Your task to perform on an android device: Add razer thresher to the cart on amazon.com Image 0: 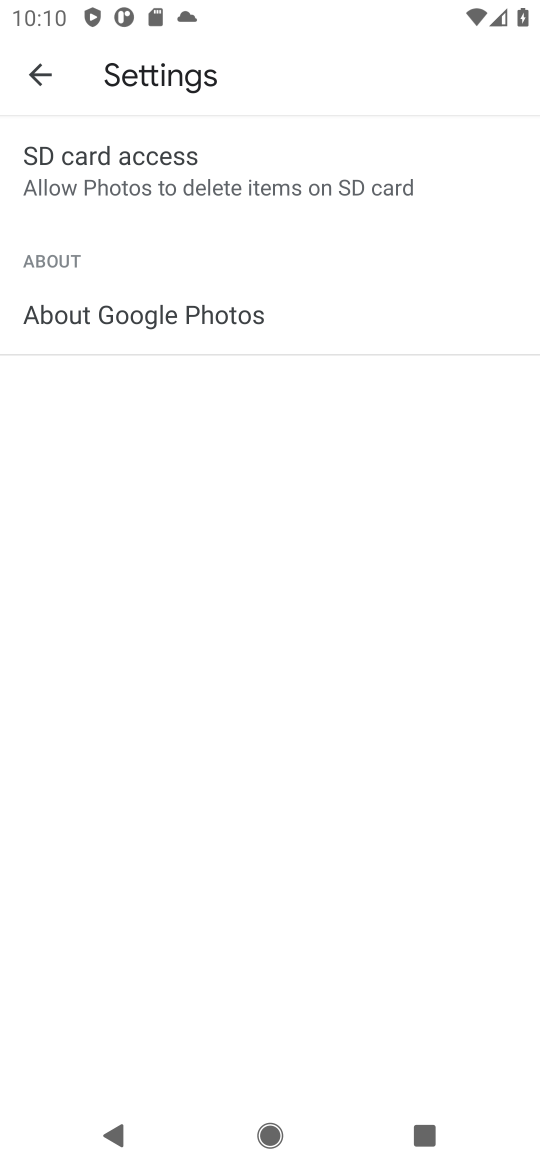
Step 0: press home button
Your task to perform on an android device: Add razer thresher to the cart on amazon.com Image 1: 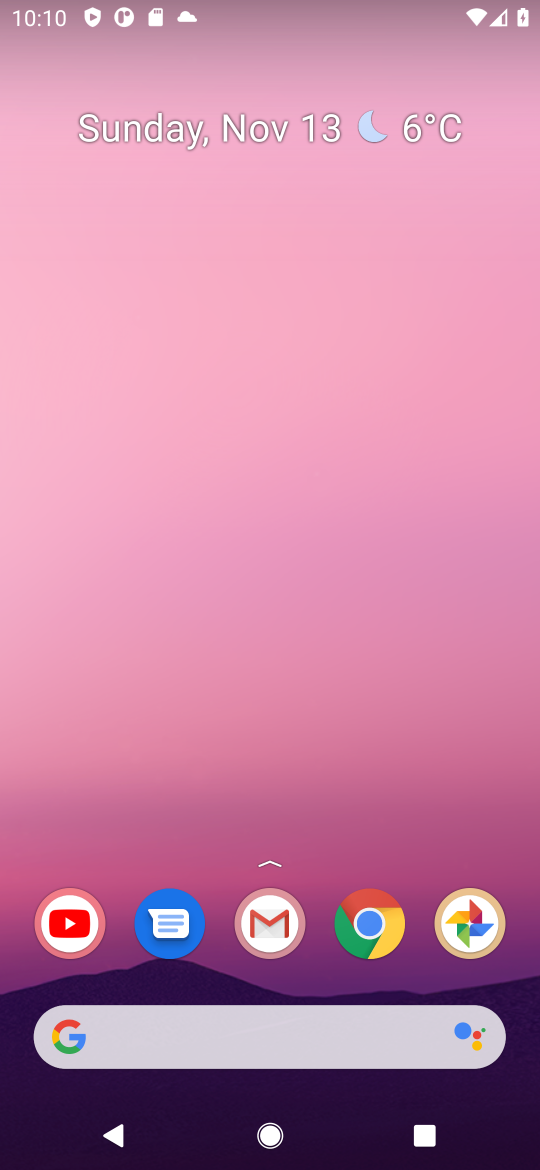
Step 1: click (362, 928)
Your task to perform on an android device: Add razer thresher to the cart on amazon.com Image 2: 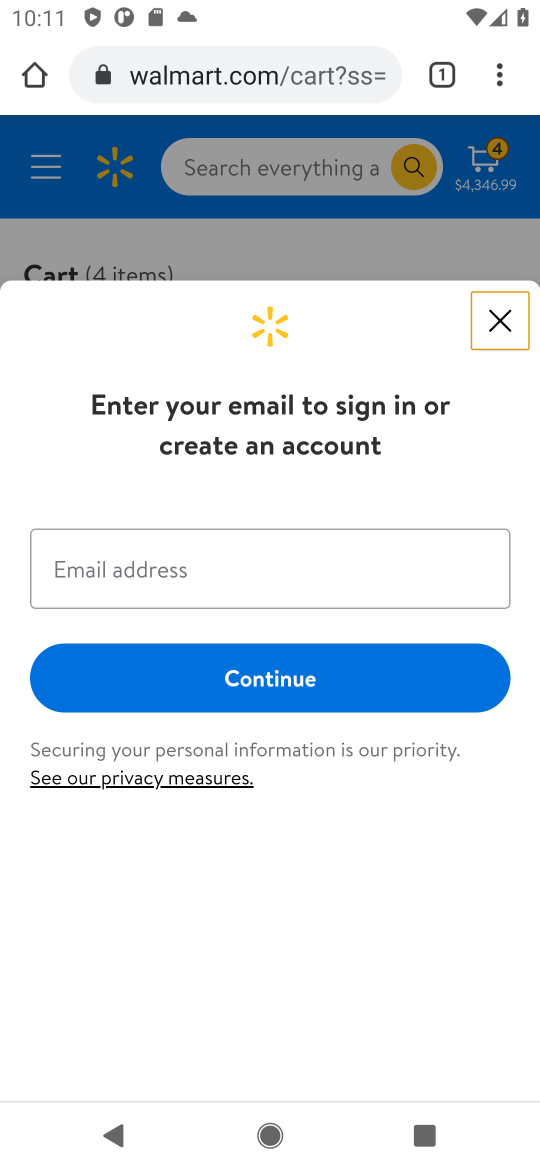
Step 2: click (333, 83)
Your task to perform on an android device: Add razer thresher to the cart on amazon.com Image 3: 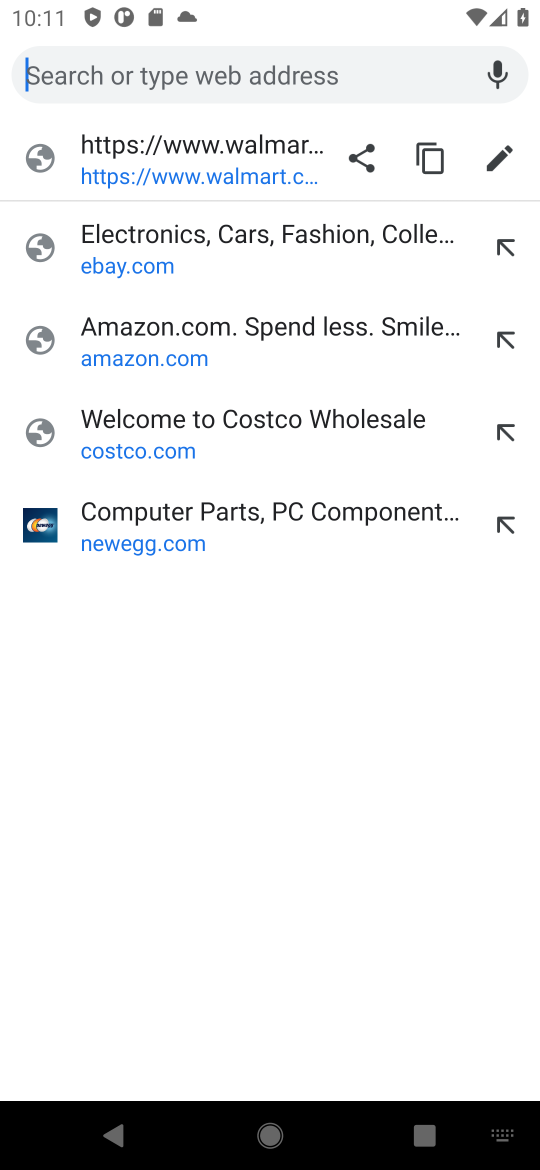
Step 3: click (227, 328)
Your task to perform on an android device: Add razer thresher to the cart on amazon.com Image 4: 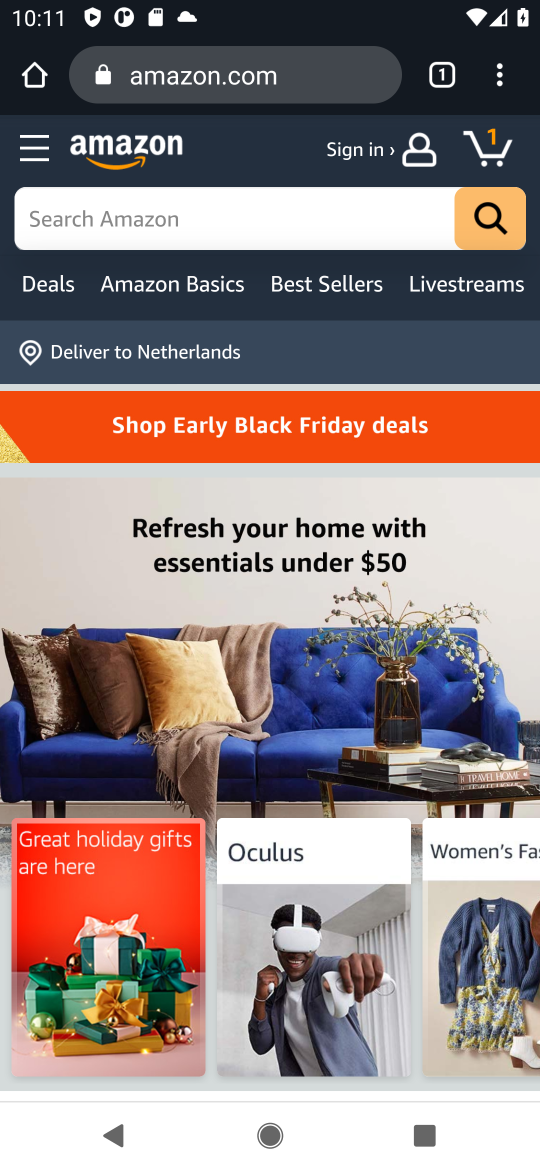
Step 4: click (287, 206)
Your task to perform on an android device: Add razer thresher to the cart on amazon.com Image 5: 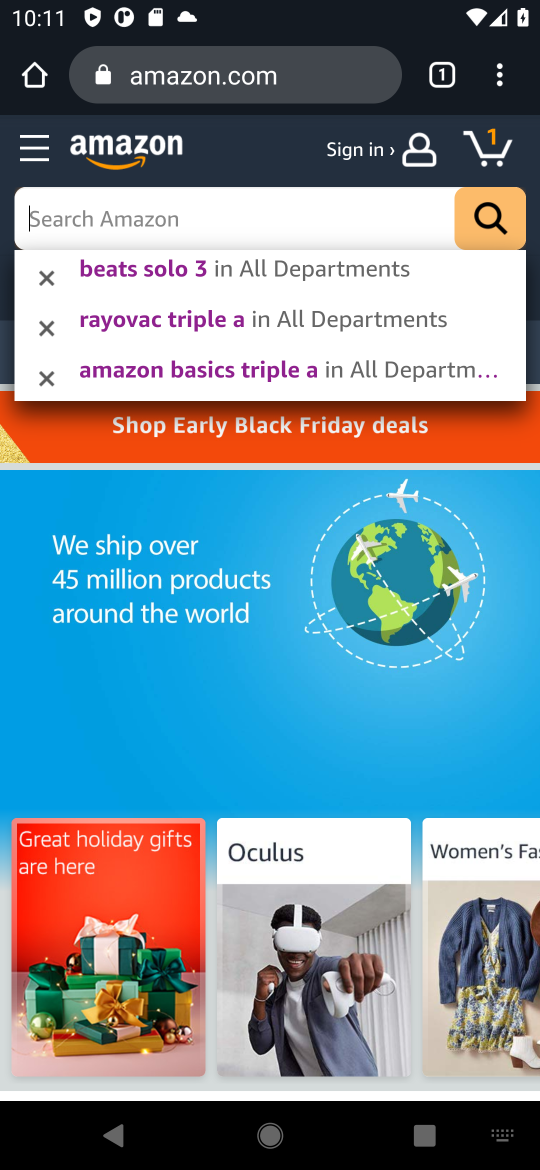
Step 5: type "razer thresher"
Your task to perform on an android device: Add razer thresher to the cart on amazon.com Image 6: 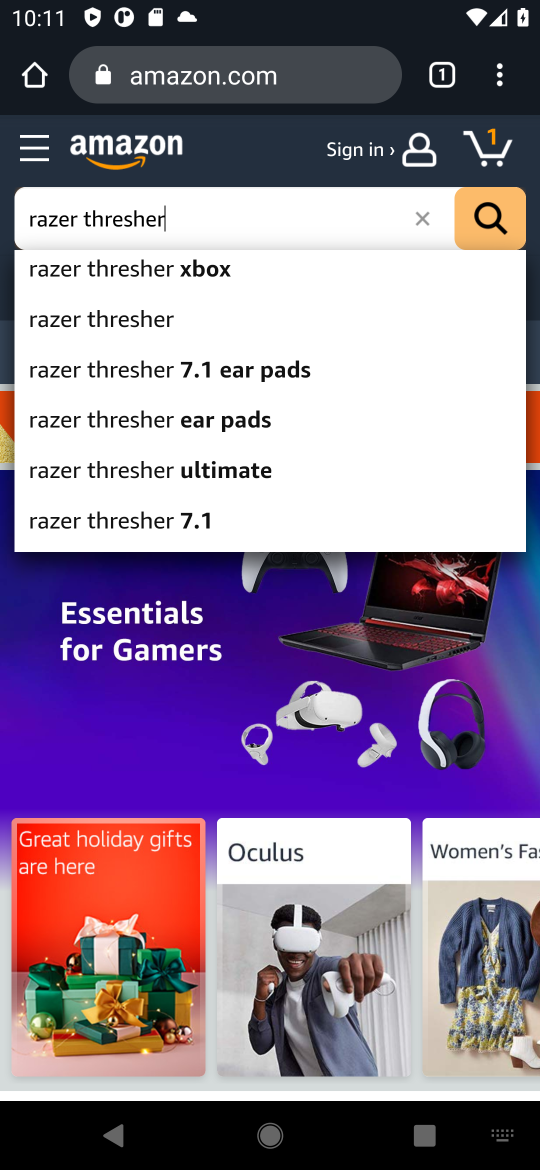
Step 6: click (139, 316)
Your task to perform on an android device: Add razer thresher to the cart on amazon.com Image 7: 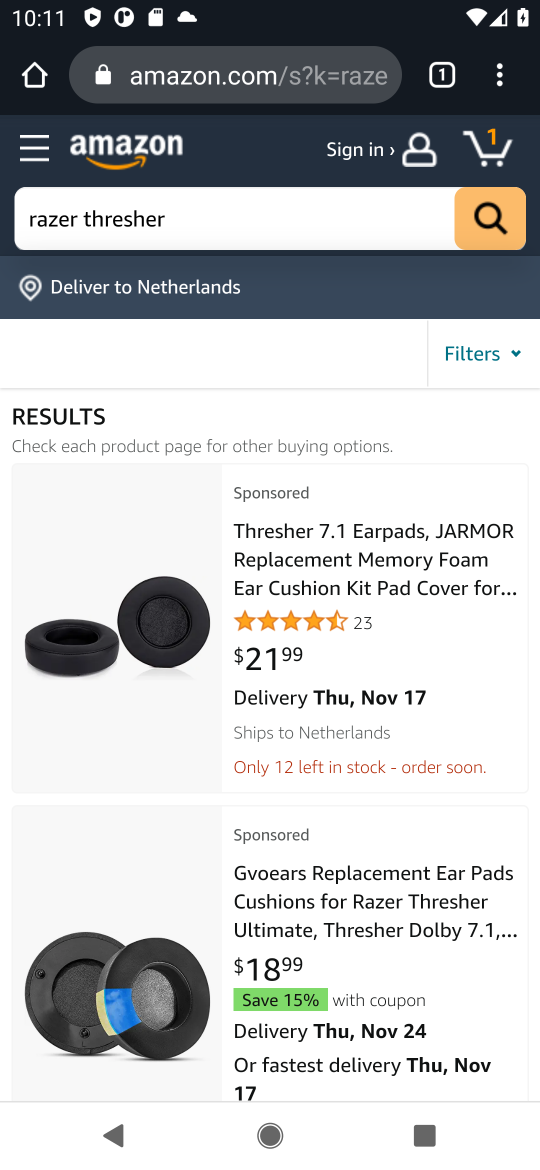
Step 7: drag from (422, 1005) to (428, 469)
Your task to perform on an android device: Add razer thresher to the cart on amazon.com Image 8: 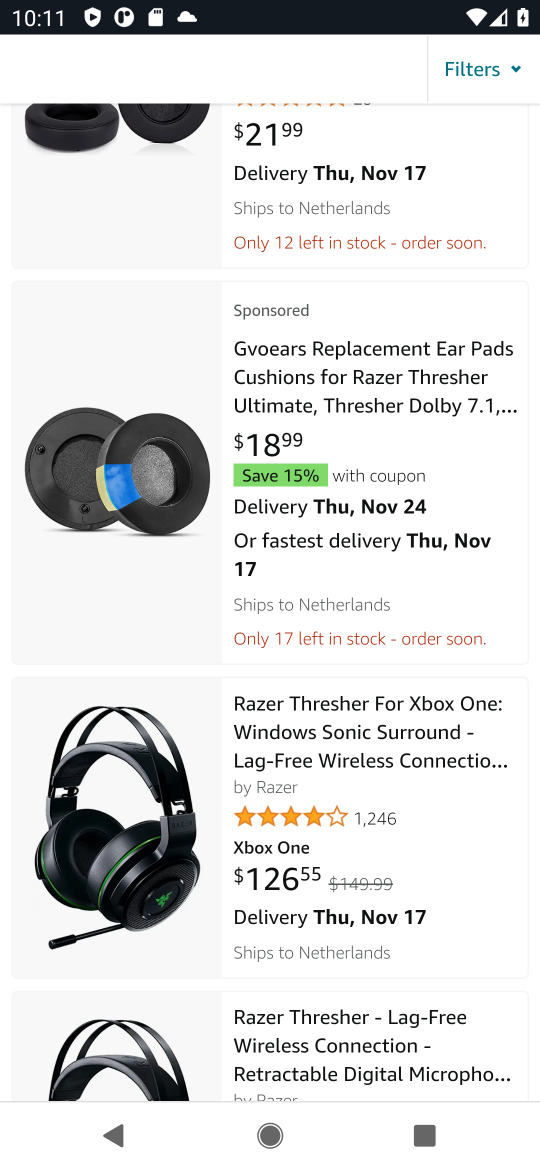
Step 8: click (90, 780)
Your task to perform on an android device: Add razer thresher to the cart on amazon.com Image 9: 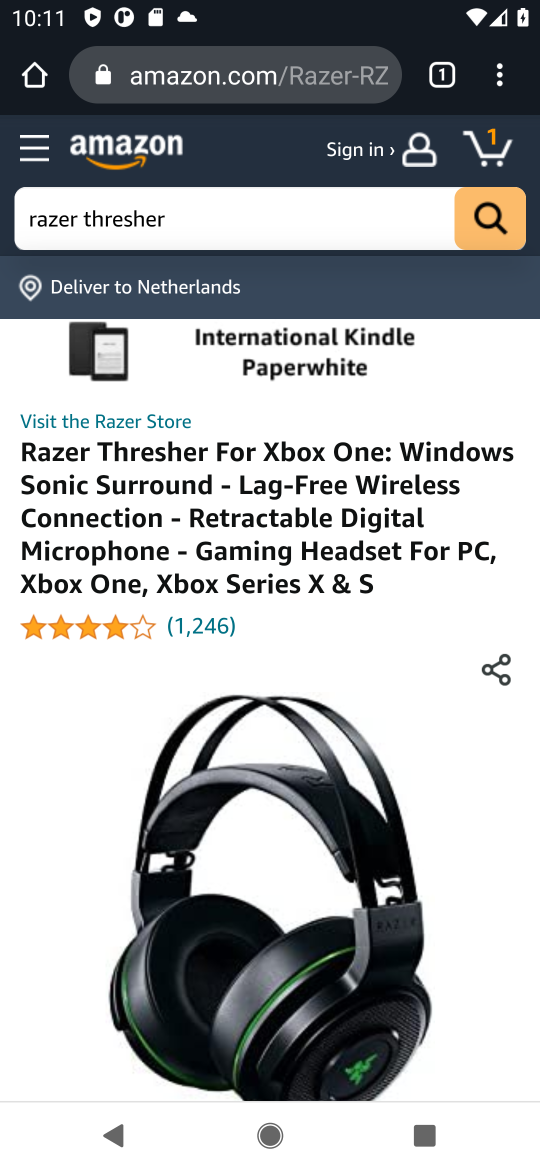
Step 9: drag from (433, 841) to (349, 369)
Your task to perform on an android device: Add razer thresher to the cart on amazon.com Image 10: 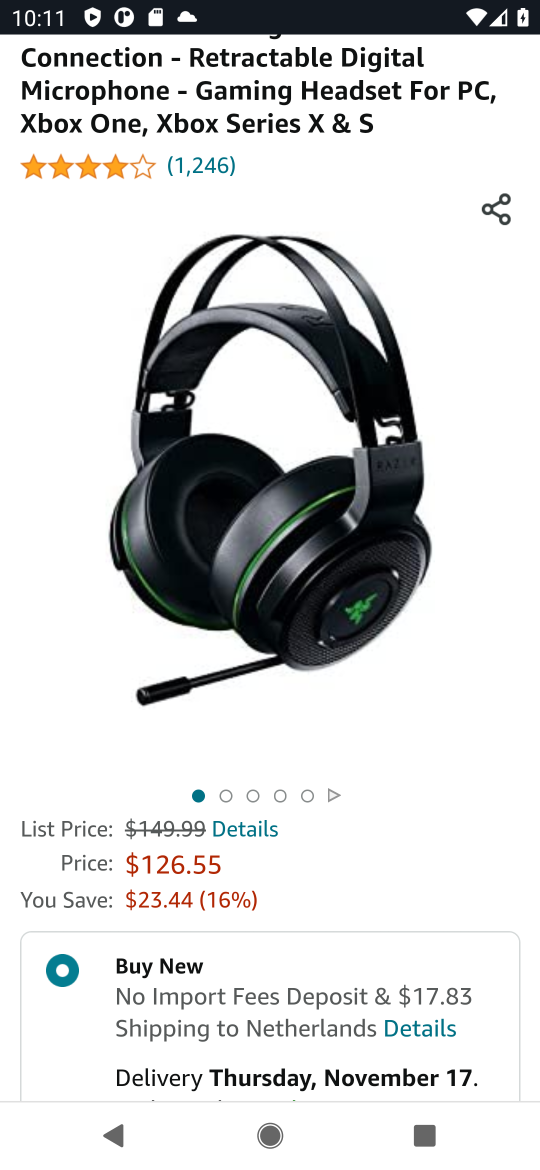
Step 10: drag from (425, 827) to (384, 464)
Your task to perform on an android device: Add razer thresher to the cart on amazon.com Image 11: 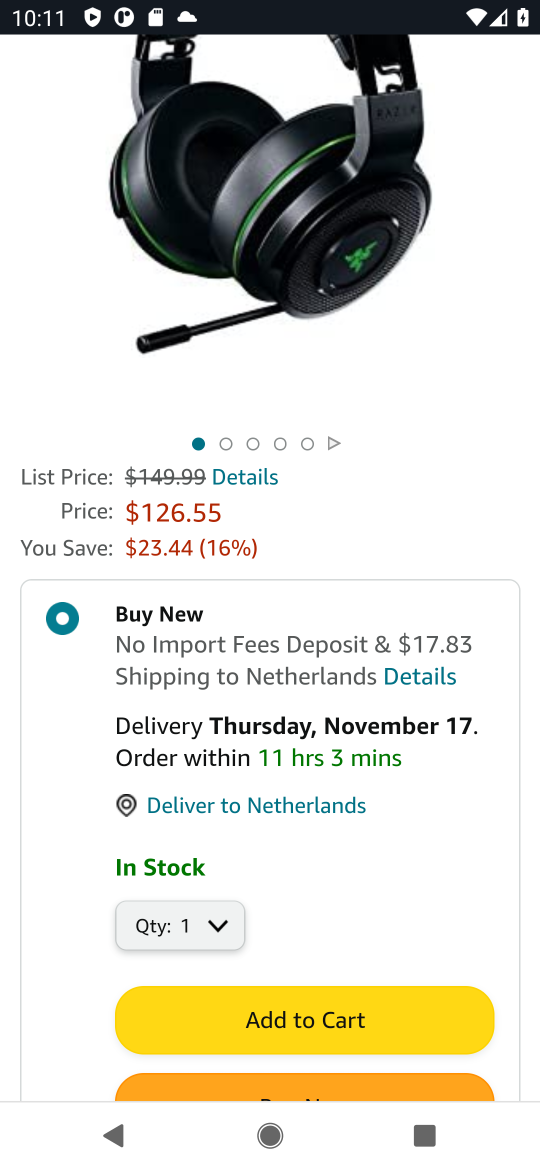
Step 11: click (413, 1005)
Your task to perform on an android device: Add razer thresher to the cart on amazon.com Image 12: 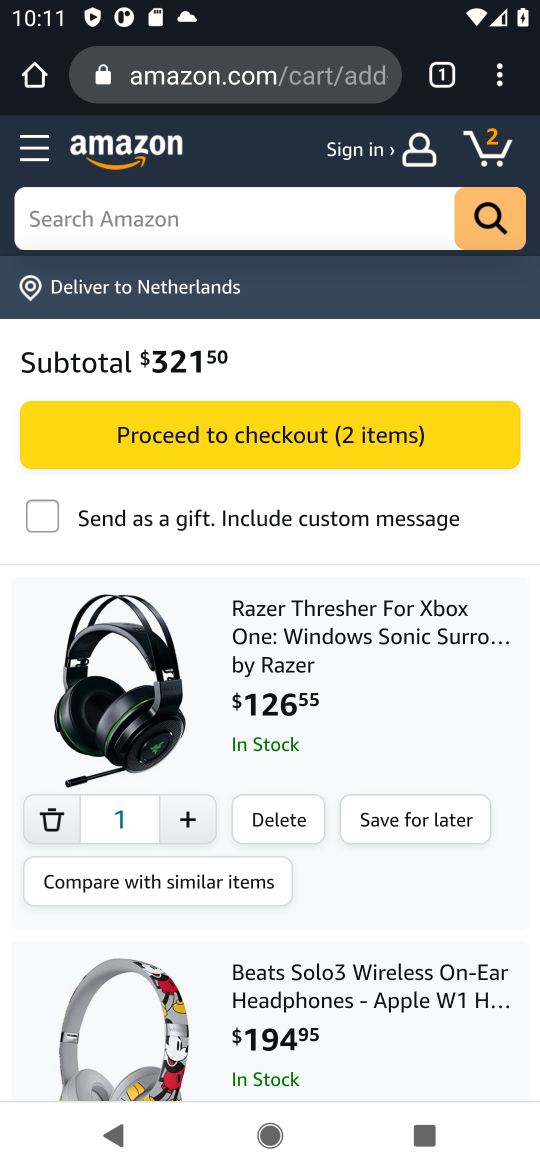
Step 12: task complete